Your task to perform on an android device: change notifications settings Image 0: 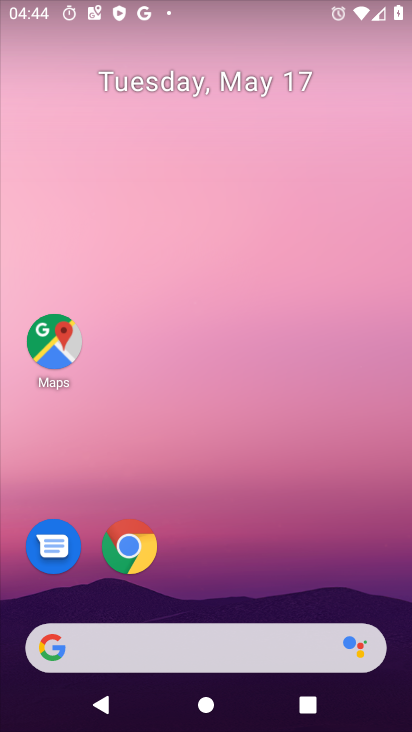
Step 0: drag from (395, 665) to (373, 267)
Your task to perform on an android device: change notifications settings Image 1: 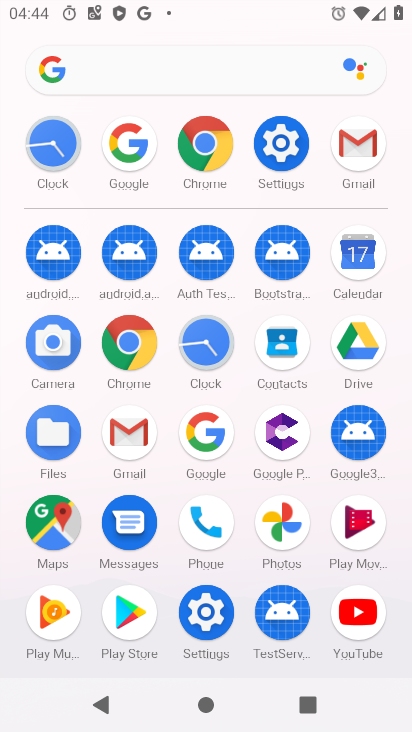
Step 1: click (282, 150)
Your task to perform on an android device: change notifications settings Image 2: 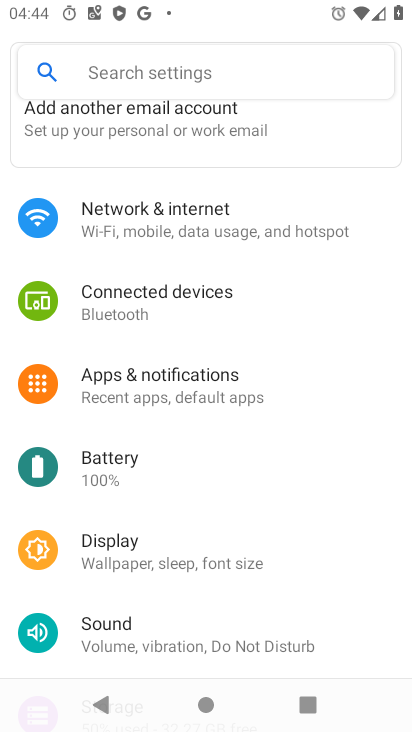
Step 2: click (132, 383)
Your task to perform on an android device: change notifications settings Image 3: 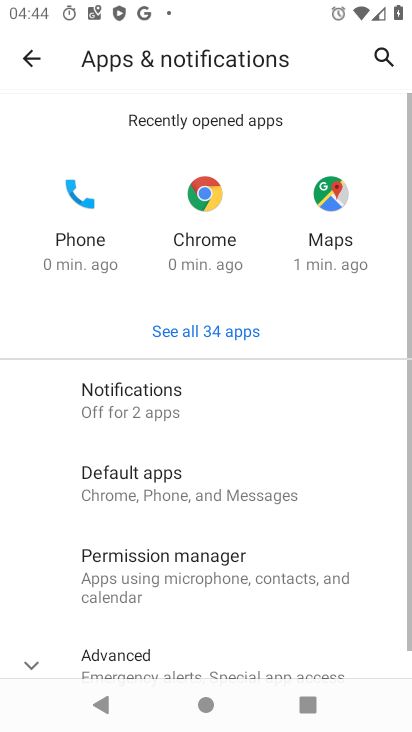
Step 3: click (136, 403)
Your task to perform on an android device: change notifications settings Image 4: 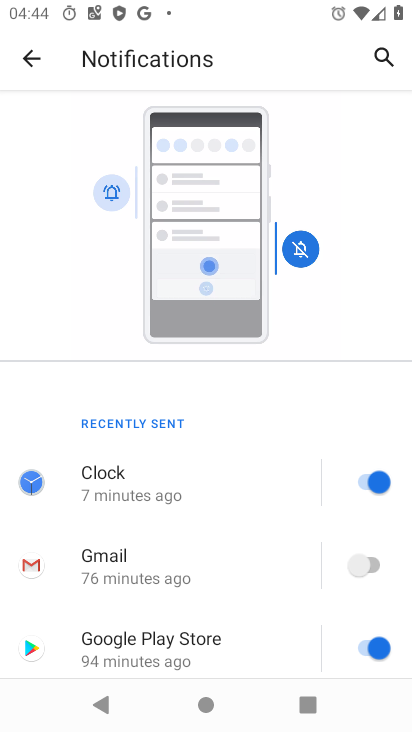
Step 4: task complete